Your task to perform on an android device: toggle location history Image 0: 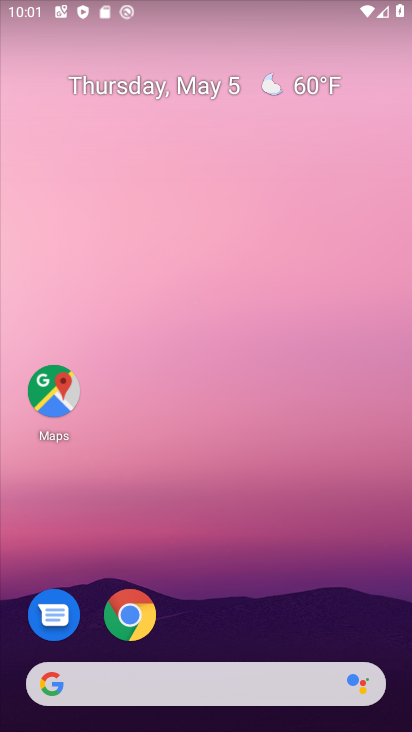
Step 0: press home button
Your task to perform on an android device: toggle location history Image 1: 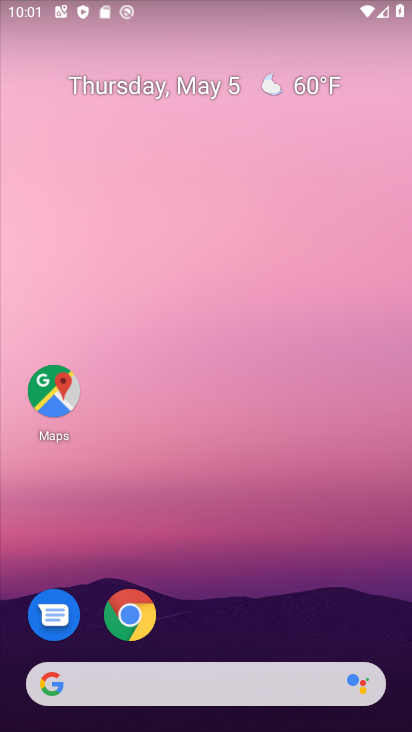
Step 1: drag from (232, 616) to (242, 120)
Your task to perform on an android device: toggle location history Image 2: 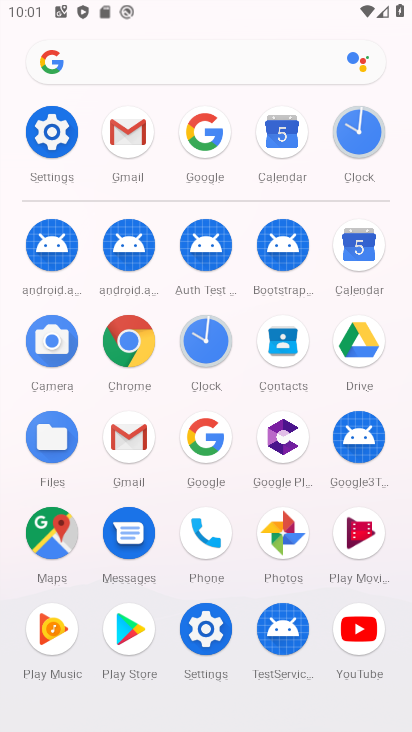
Step 2: click (53, 133)
Your task to perform on an android device: toggle location history Image 3: 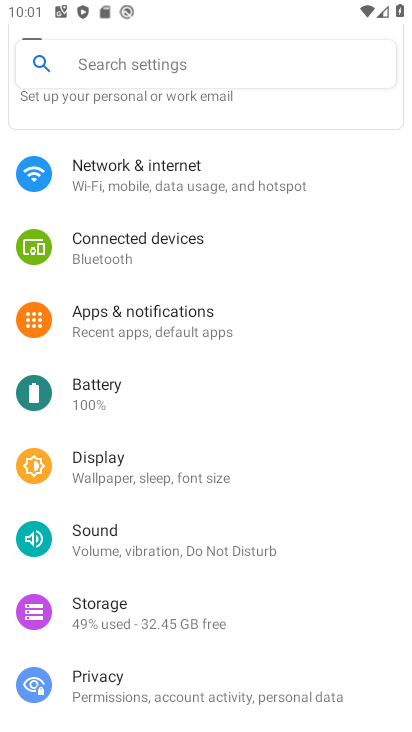
Step 3: drag from (187, 520) to (195, 186)
Your task to perform on an android device: toggle location history Image 4: 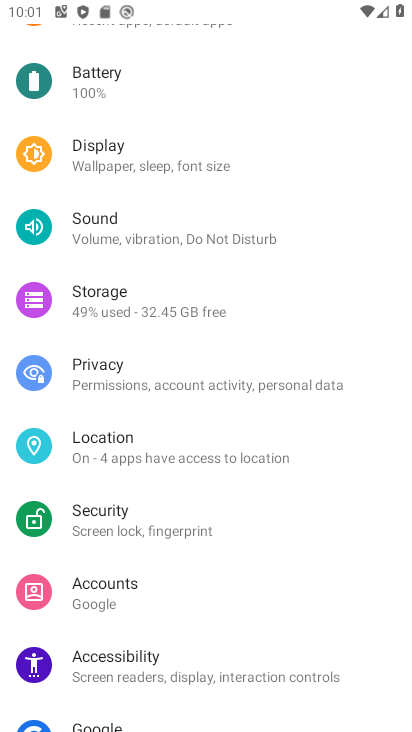
Step 4: click (182, 456)
Your task to perform on an android device: toggle location history Image 5: 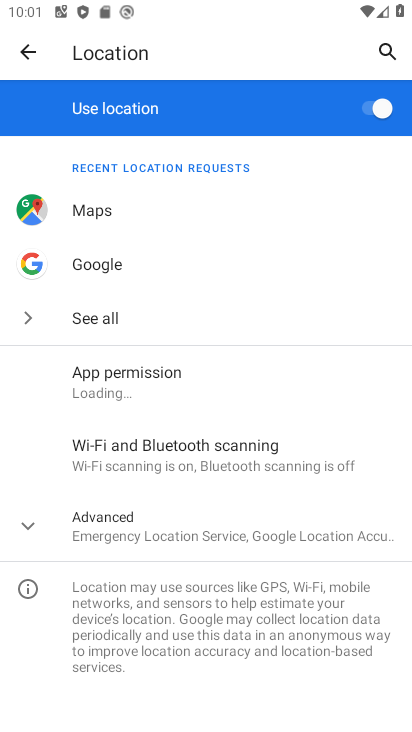
Step 5: click (116, 525)
Your task to perform on an android device: toggle location history Image 6: 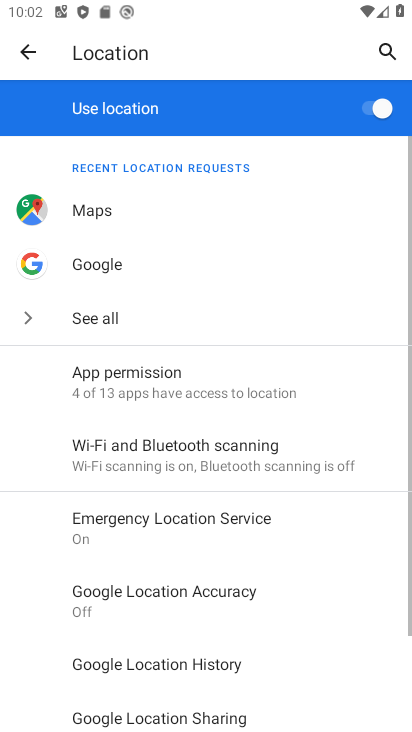
Step 6: drag from (180, 615) to (168, 403)
Your task to perform on an android device: toggle location history Image 7: 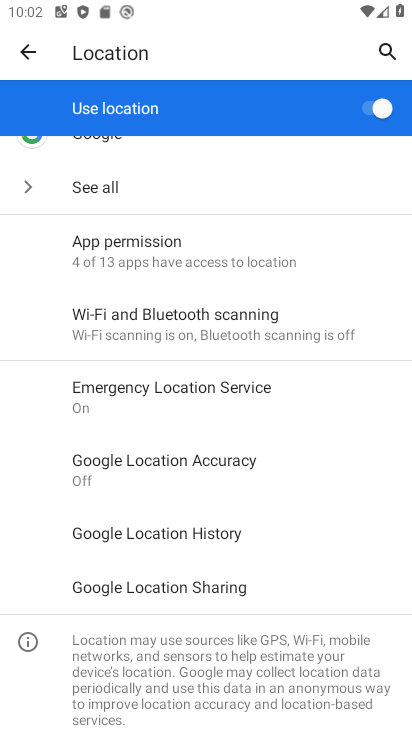
Step 7: click (196, 537)
Your task to perform on an android device: toggle location history Image 8: 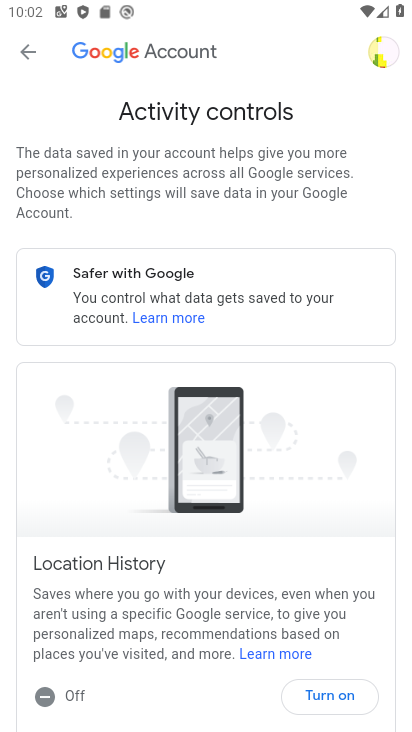
Step 8: drag from (229, 592) to (240, 187)
Your task to perform on an android device: toggle location history Image 9: 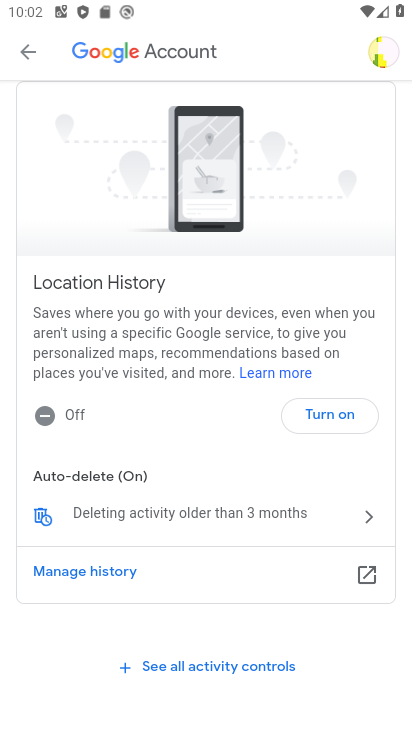
Step 9: drag from (230, 523) to (218, 334)
Your task to perform on an android device: toggle location history Image 10: 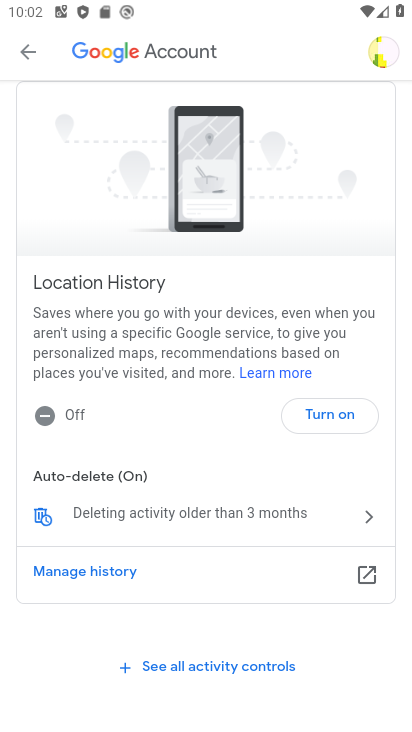
Step 10: drag from (195, 460) to (214, 228)
Your task to perform on an android device: toggle location history Image 11: 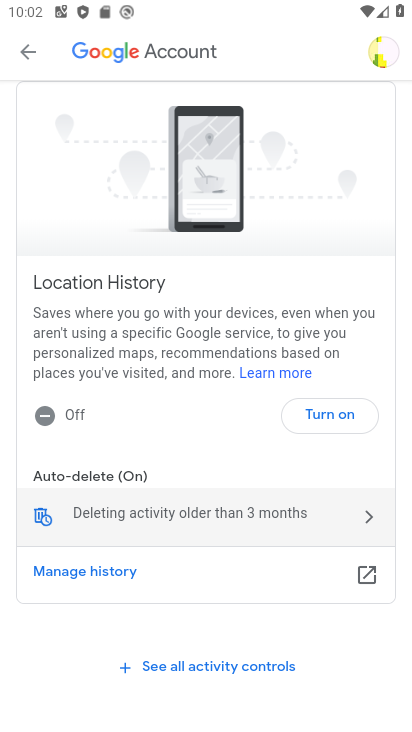
Step 11: drag from (269, 593) to (244, 352)
Your task to perform on an android device: toggle location history Image 12: 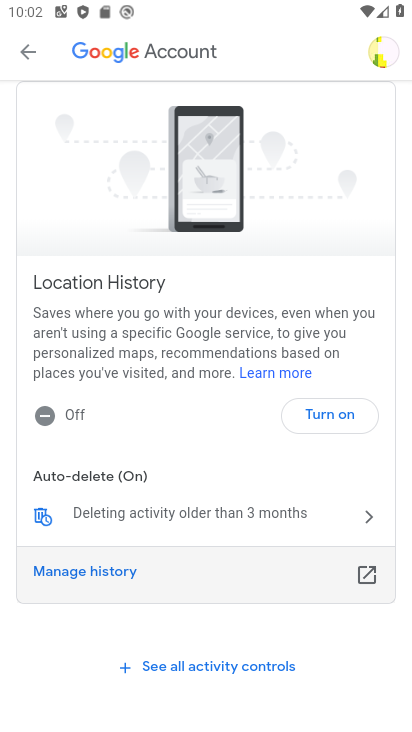
Step 12: click (319, 415)
Your task to perform on an android device: toggle location history Image 13: 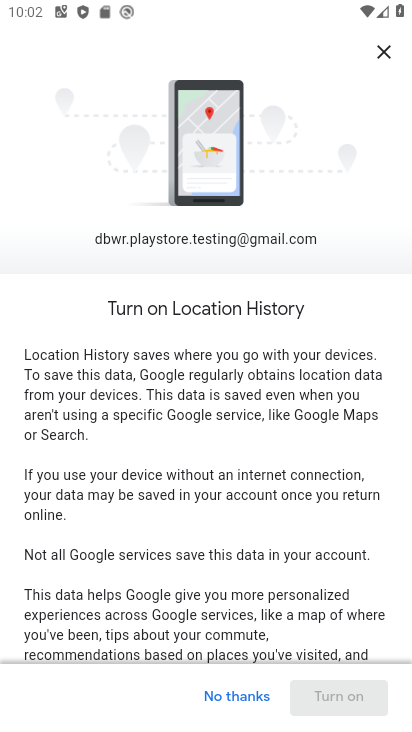
Step 13: drag from (229, 577) to (277, 11)
Your task to perform on an android device: toggle location history Image 14: 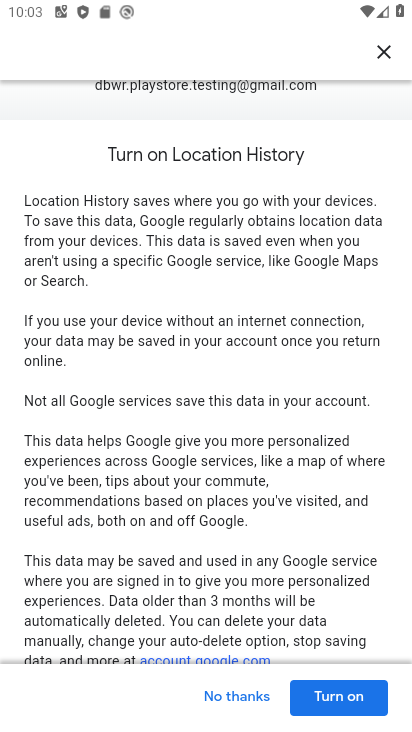
Step 14: click (338, 704)
Your task to perform on an android device: toggle location history Image 15: 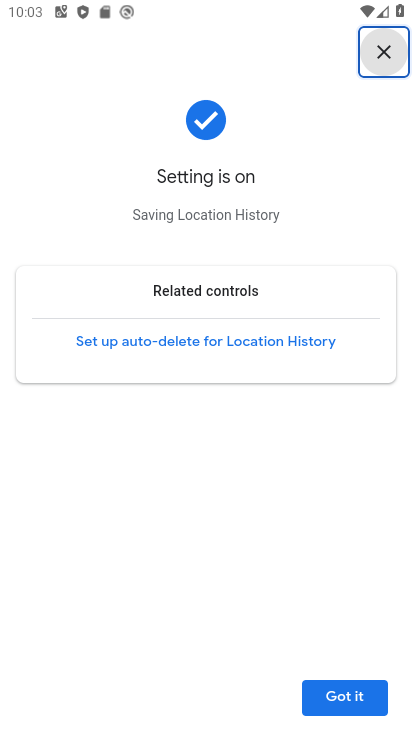
Step 15: click (338, 704)
Your task to perform on an android device: toggle location history Image 16: 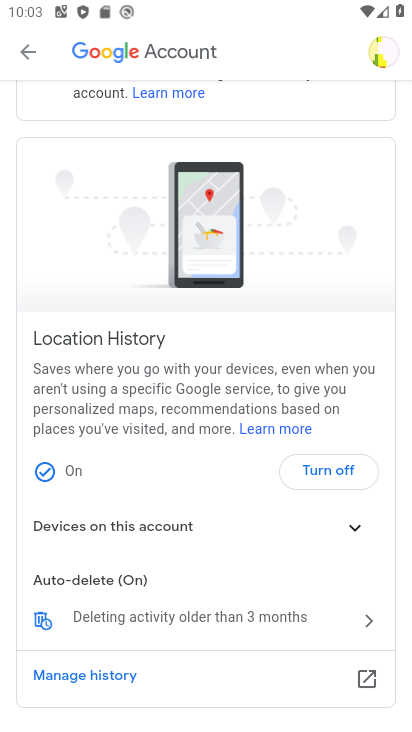
Step 16: task complete